Your task to perform on an android device: Show me recent news Image 0: 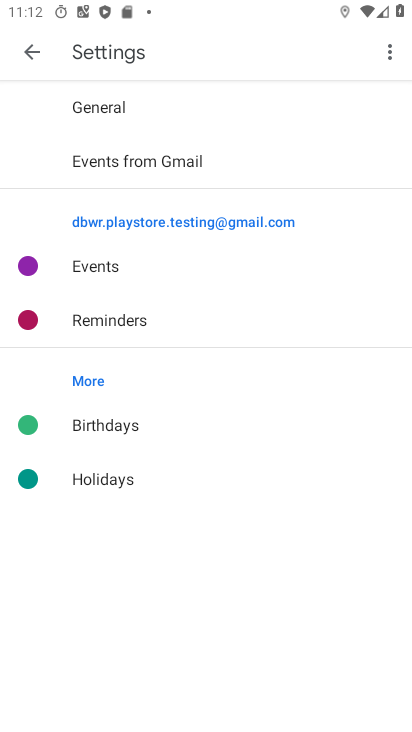
Step 0: press home button
Your task to perform on an android device: Show me recent news Image 1: 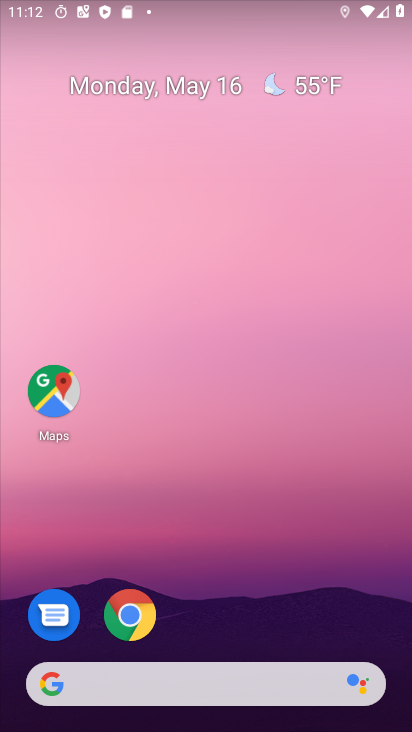
Step 1: click (141, 613)
Your task to perform on an android device: Show me recent news Image 2: 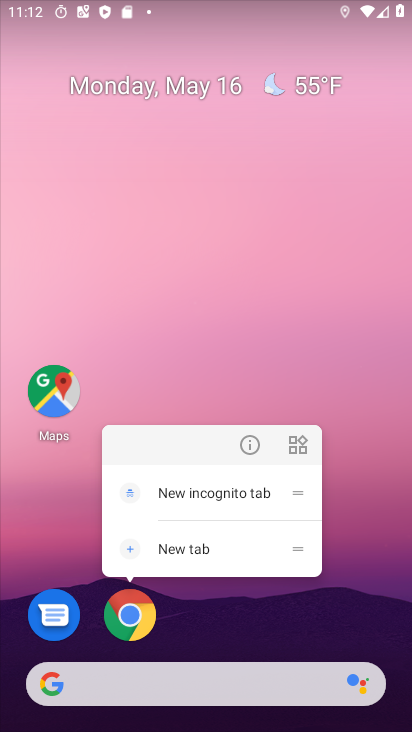
Step 2: click (131, 613)
Your task to perform on an android device: Show me recent news Image 3: 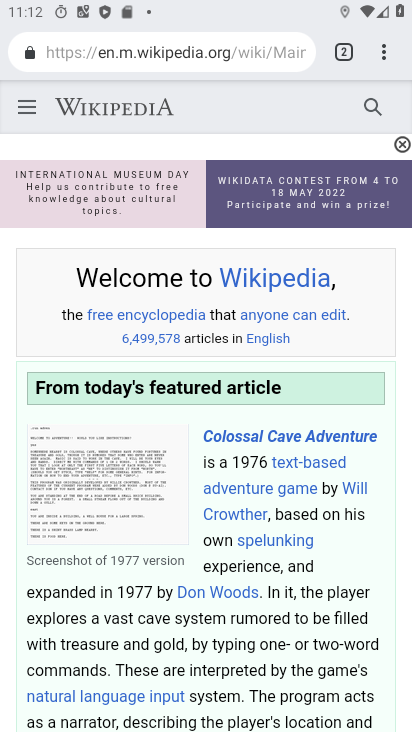
Step 3: click (224, 43)
Your task to perform on an android device: Show me recent news Image 4: 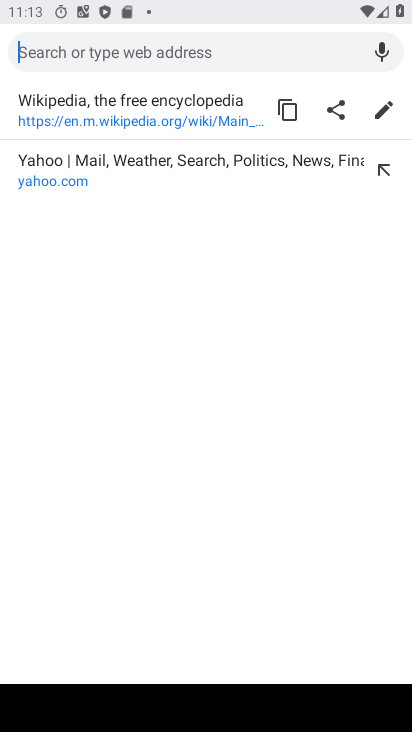
Step 4: type "Show me recent news"
Your task to perform on an android device: Show me recent news Image 5: 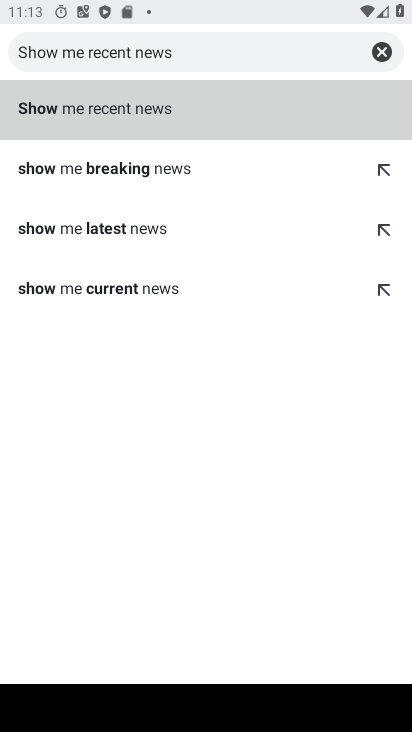
Step 5: click (90, 105)
Your task to perform on an android device: Show me recent news Image 6: 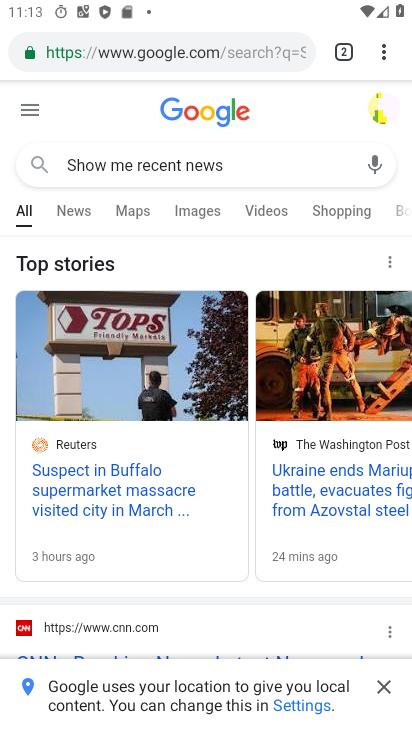
Step 6: click (64, 207)
Your task to perform on an android device: Show me recent news Image 7: 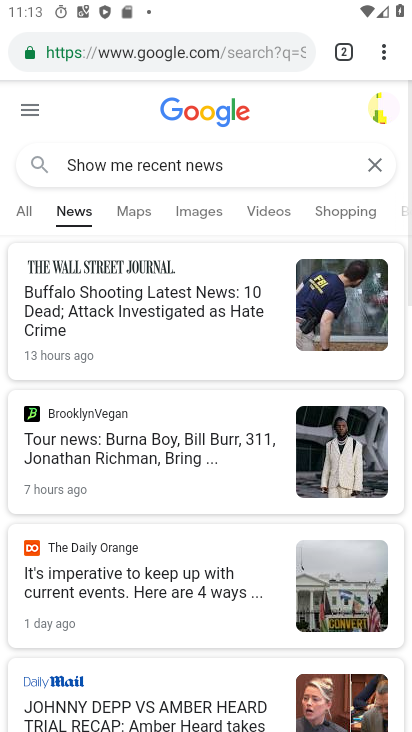
Step 7: click (72, 206)
Your task to perform on an android device: Show me recent news Image 8: 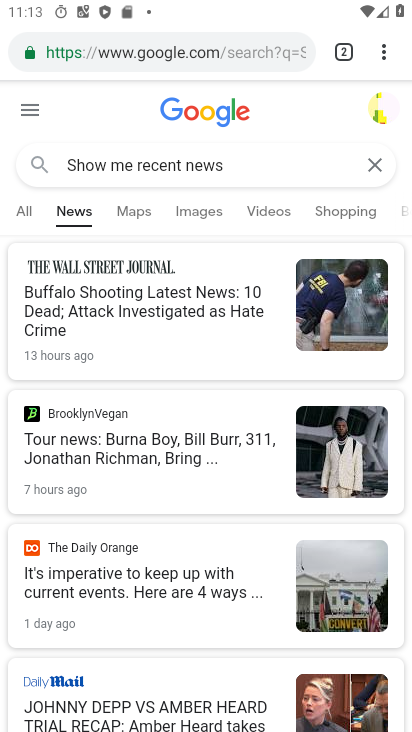
Step 8: task complete